Your task to perform on an android device: open wifi settings Image 0: 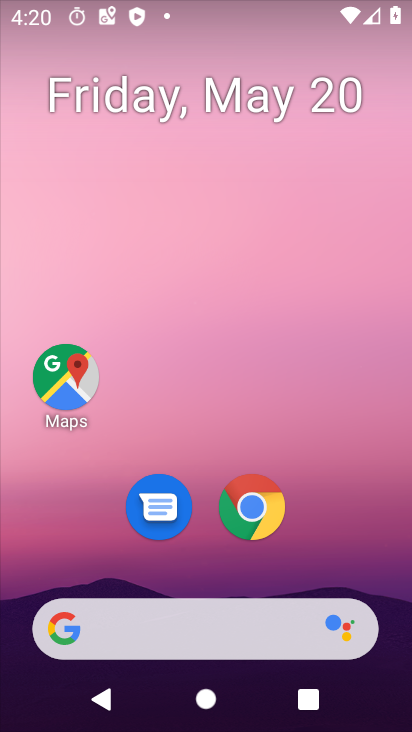
Step 0: drag from (335, 571) to (173, 157)
Your task to perform on an android device: open wifi settings Image 1: 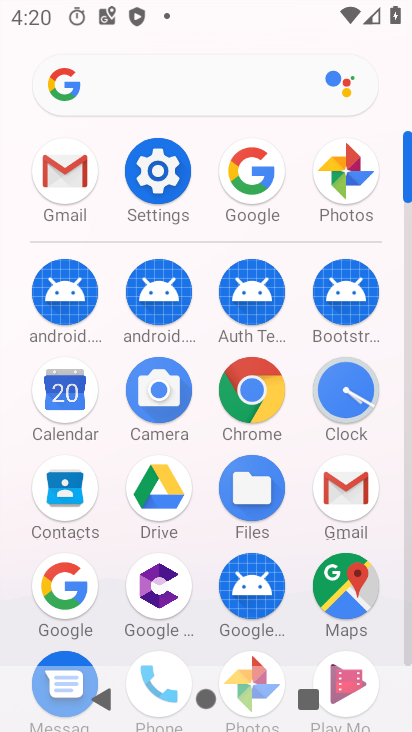
Step 1: click (160, 174)
Your task to perform on an android device: open wifi settings Image 2: 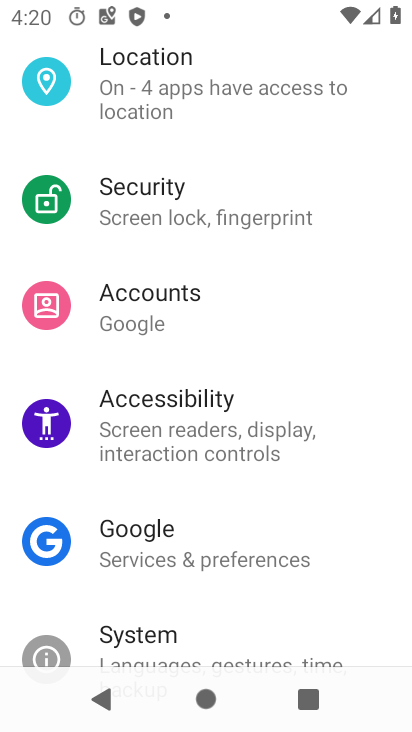
Step 2: drag from (182, 144) to (180, 246)
Your task to perform on an android device: open wifi settings Image 3: 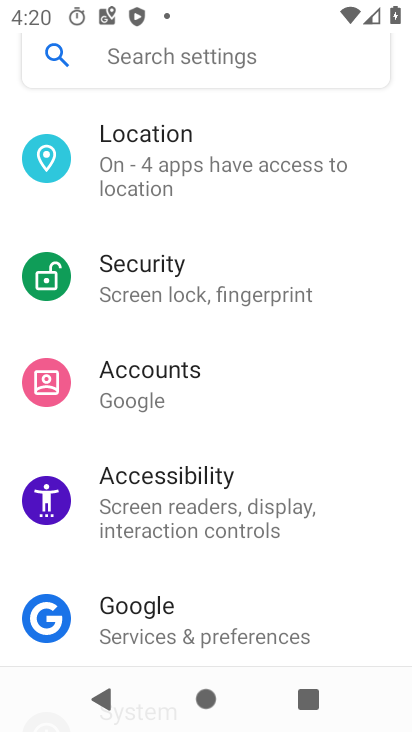
Step 3: drag from (202, 122) to (221, 236)
Your task to perform on an android device: open wifi settings Image 4: 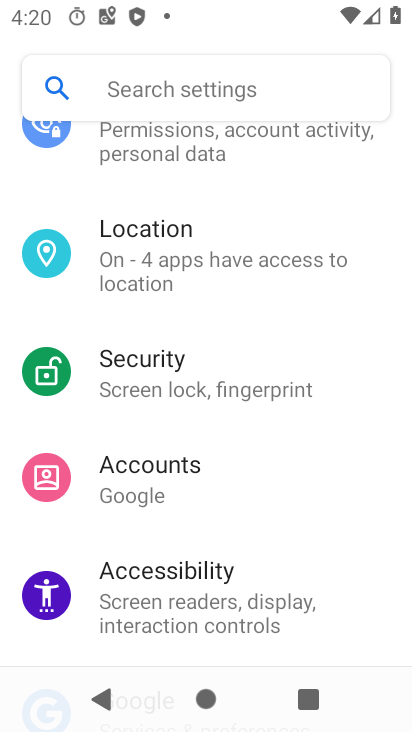
Step 4: drag from (220, 185) to (216, 348)
Your task to perform on an android device: open wifi settings Image 5: 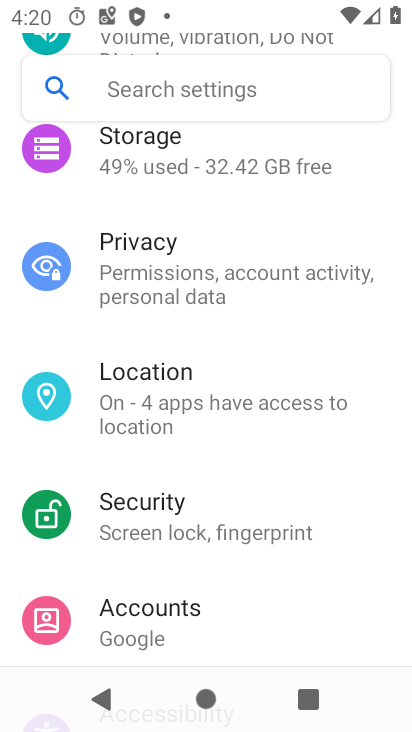
Step 5: drag from (203, 217) to (219, 339)
Your task to perform on an android device: open wifi settings Image 6: 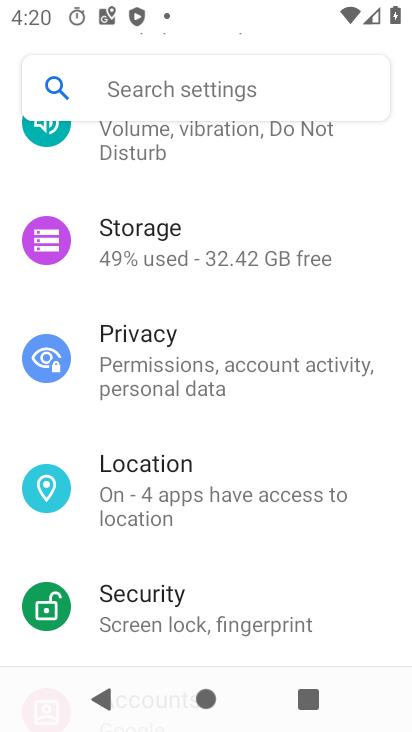
Step 6: drag from (182, 197) to (211, 326)
Your task to perform on an android device: open wifi settings Image 7: 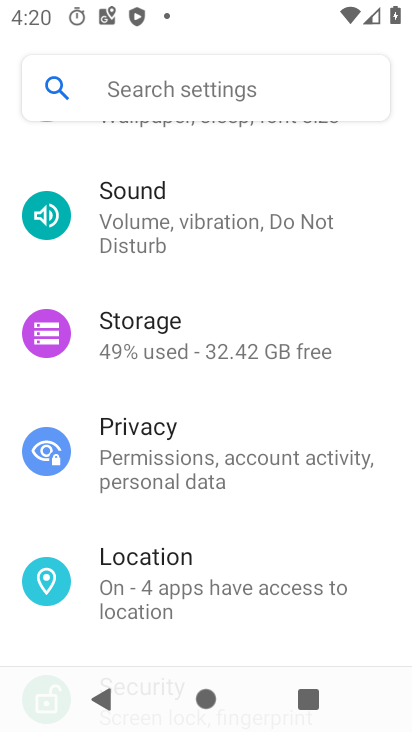
Step 7: drag from (196, 166) to (212, 367)
Your task to perform on an android device: open wifi settings Image 8: 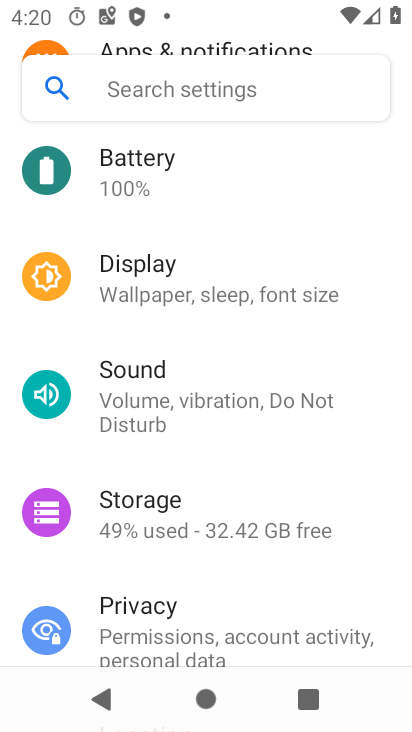
Step 8: drag from (190, 226) to (221, 339)
Your task to perform on an android device: open wifi settings Image 9: 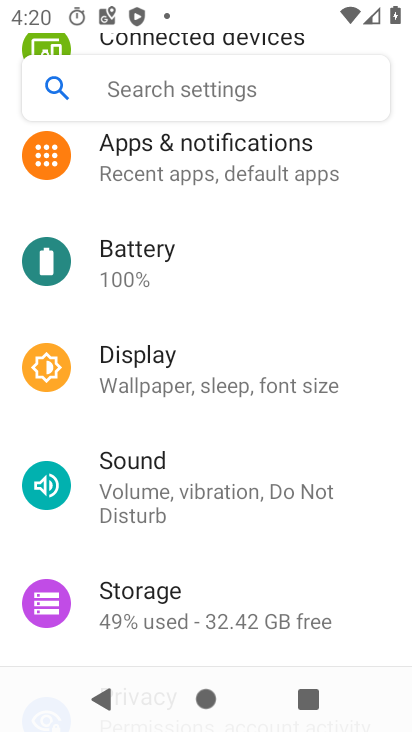
Step 9: drag from (188, 213) to (214, 330)
Your task to perform on an android device: open wifi settings Image 10: 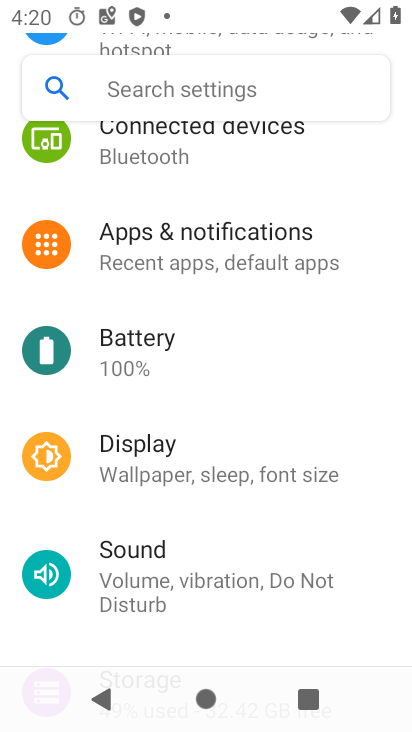
Step 10: drag from (176, 186) to (217, 278)
Your task to perform on an android device: open wifi settings Image 11: 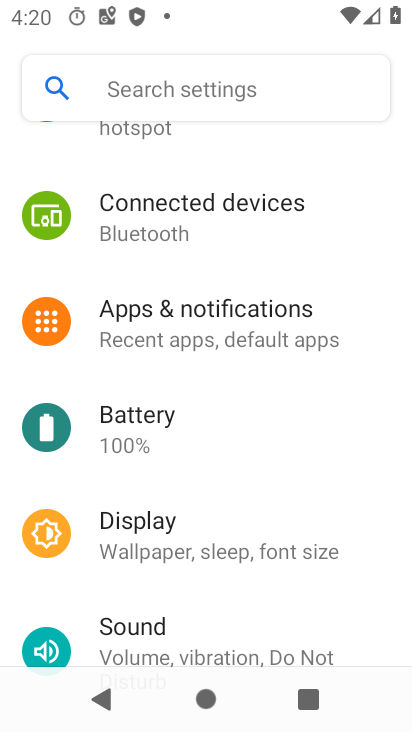
Step 11: drag from (185, 162) to (222, 302)
Your task to perform on an android device: open wifi settings Image 12: 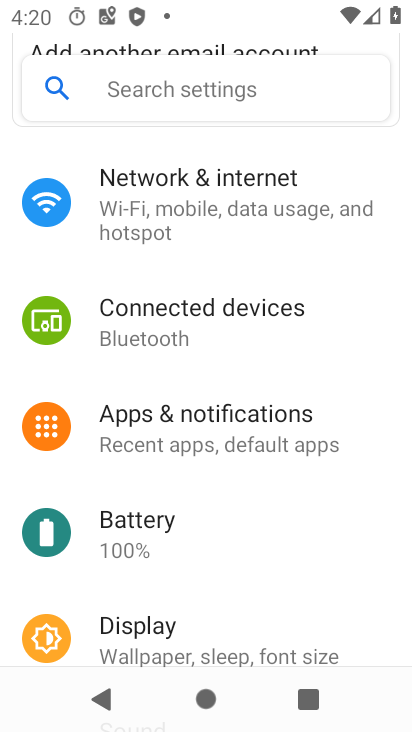
Step 12: drag from (199, 146) to (243, 257)
Your task to perform on an android device: open wifi settings Image 13: 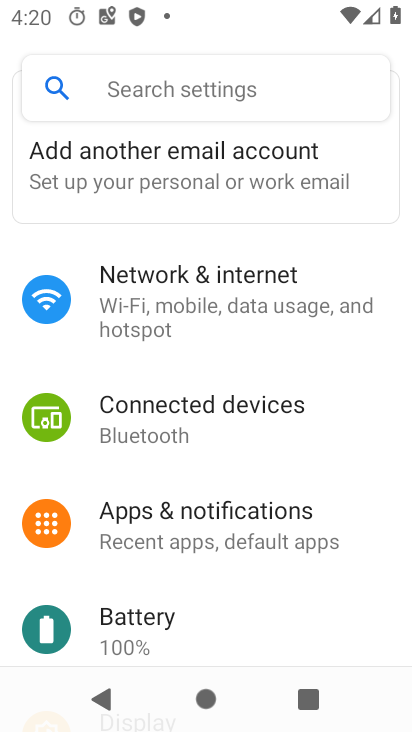
Step 13: click (230, 274)
Your task to perform on an android device: open wifi settings Image 14: 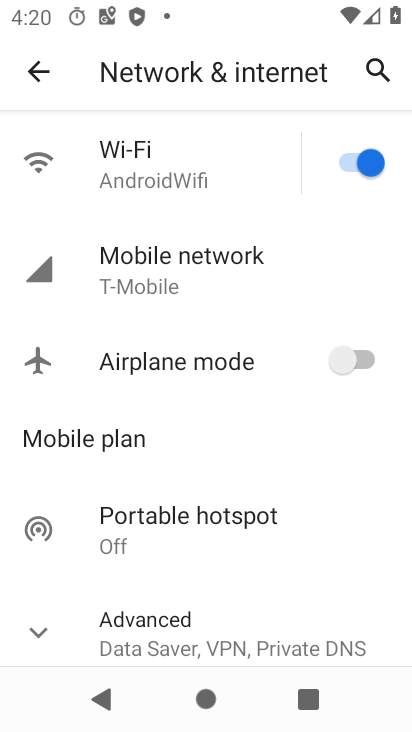
Step 14: click (119, 138)
Your task to perform on an android device: open wifi settings Image 15: 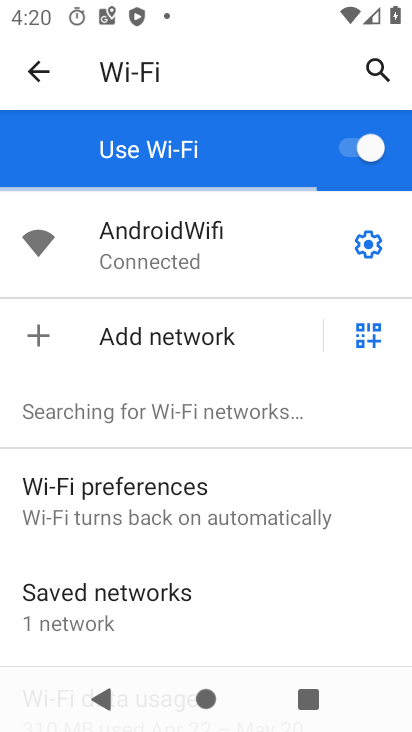
Step 15: click (368, 242)
Your task to perform on an android device: open wifi settings Image 16: 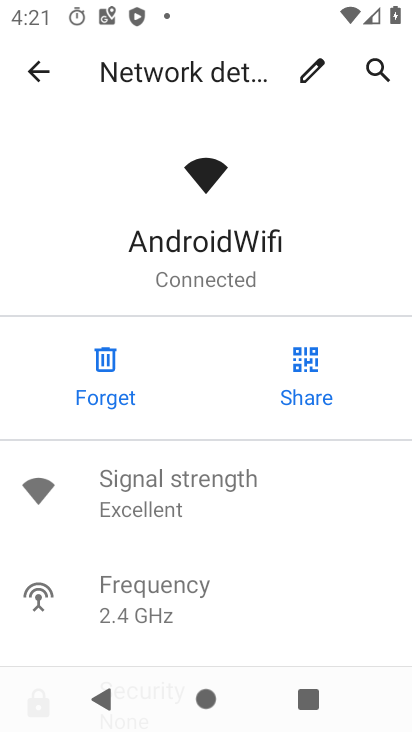
Step 16: task complete